Your task to perform on an android device: toggle improve location accuracy Image 0: 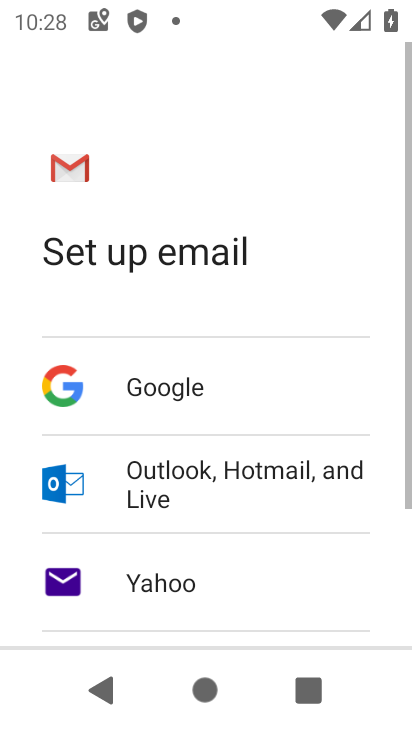
Step 0: press back button
Your task to perform on an android device: toggle improve location accuracy Image 1: 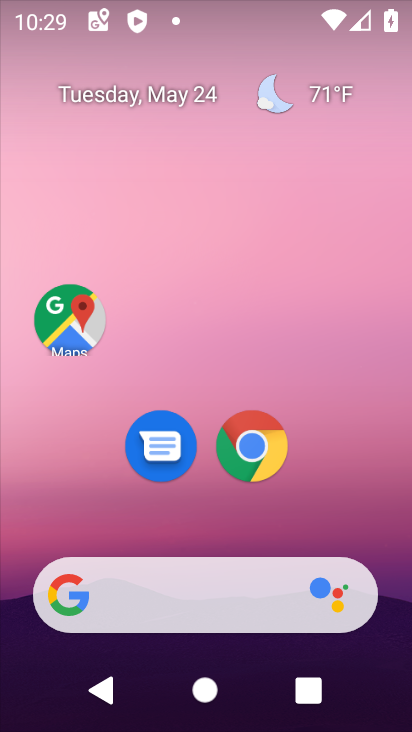
Step 1: drag from (331, 498) to (322, 93)
Your task to perform on an android device: toggle improve location accuracy Image 2: 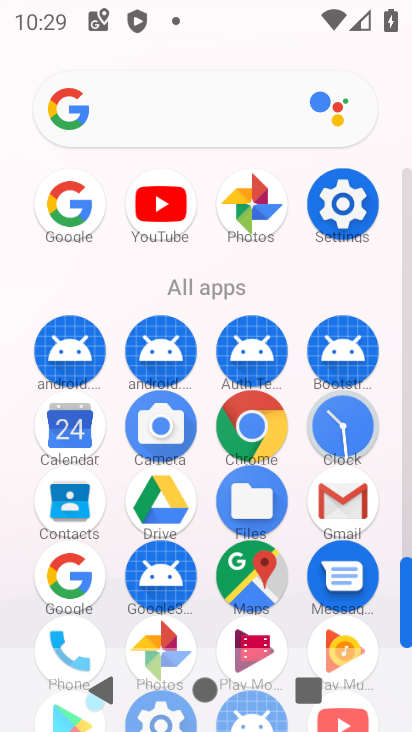
Step 2: click (345, 205)
Your task to perform on an android device: toggle improve location accuracy Image 3: 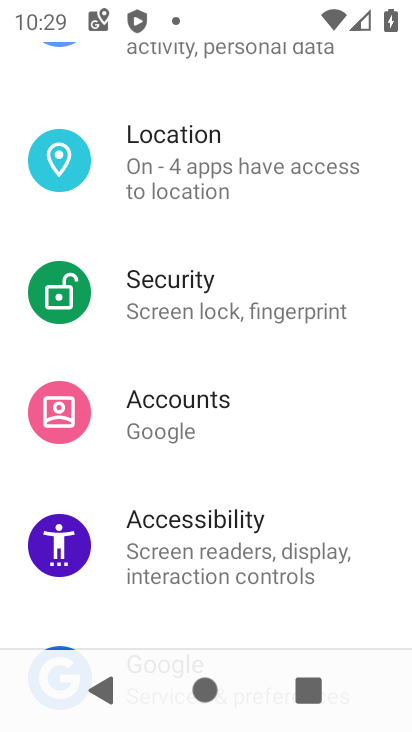
Step 3: drag from (235, 252) to (251, 411)
Your task to perform on an android device: toggle improve location accuracy Image 4: 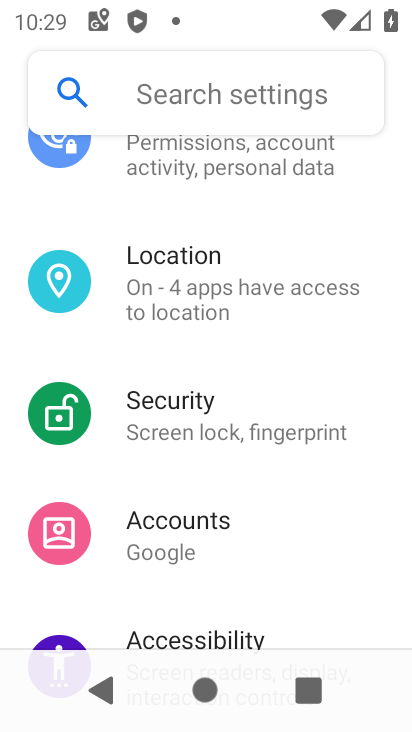
Step 4: click (186, 304)
Your task to perform on an android device: toggle improve location accuracy Image 5: 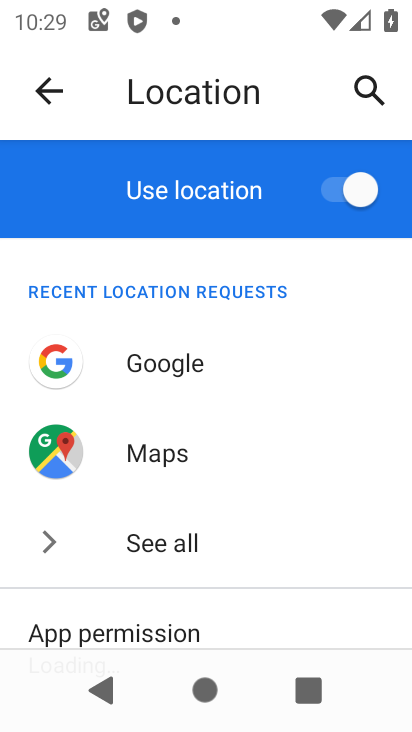
Step 5: drag from (173, 420) to (242, 335)
Your task to perform on an android device: toggle improve location accuracy Image 6: 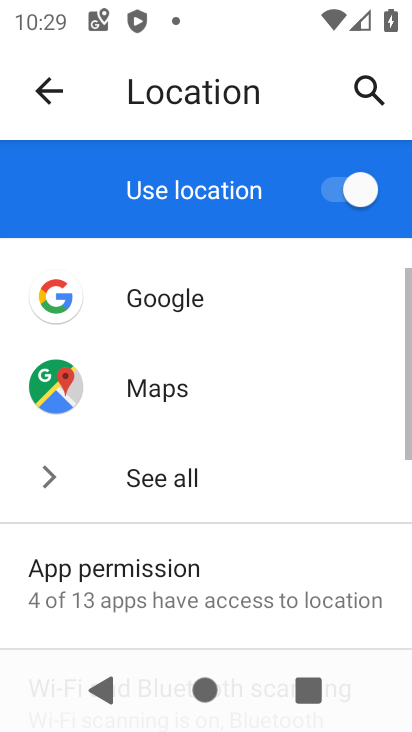
Step 6: drag from (228, 491) to (300, 384)
Your task to perform on an android device: toggle improve location accuracy Image 7: 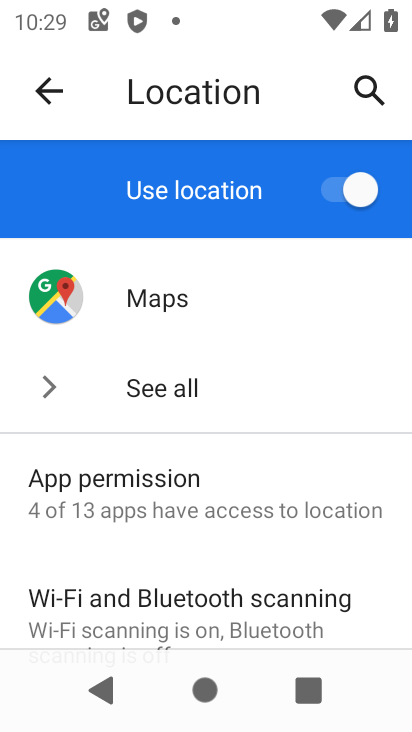
Step 7: drag from (207, 529) to (272, 446)
Your task to perform on an android device: toggle improve location accuracy Image 8: 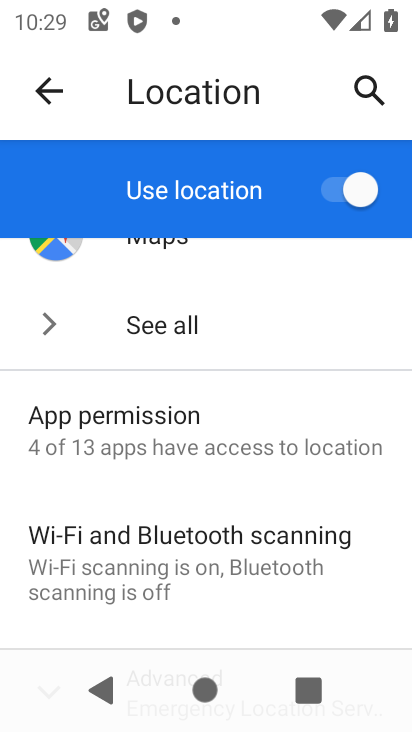
Step 8: drag from (201, 568) to (284, 461)
Your task to perform on an android device: toggle improve location accuracy Image 9: 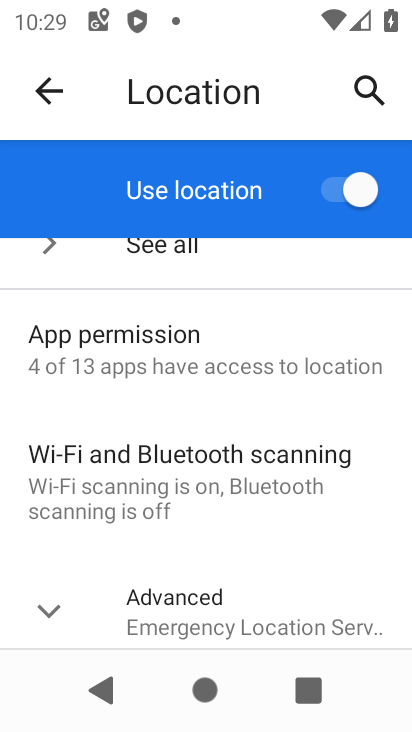
Step 9: drag from (207, 563) to (288, 464)
Your task to perform on an android device: toggle improve location accuracy Image 10: 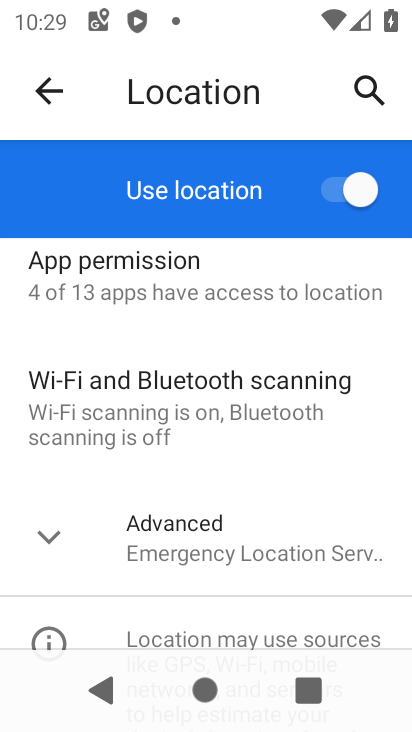
Step 10: click (214, 551)
Your task to perform on an android device: toggle improve location accuracy Image 11: 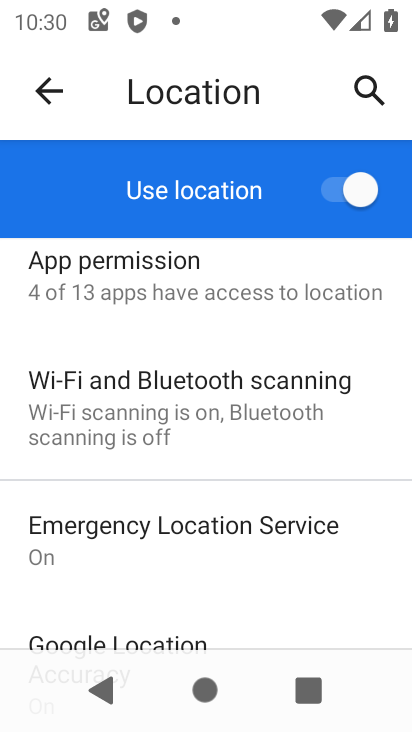
Step 11: drag from (211, 568) to (280, 464)
Your task to perform on an android device: toggle improve location accuracy Image 12: 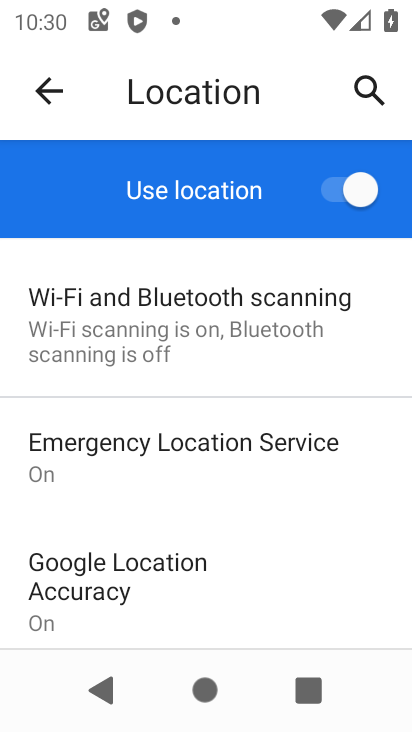
Step 12: drag from (196, 598) to (247, 529)
Your task to perform on an android device: toggle improve location accuracy Image 13: 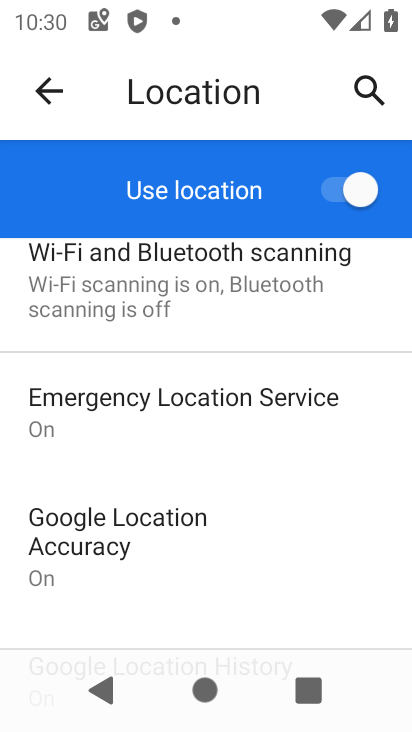
Step 13: click (152, 510)
Your task to perform on an android device: toggle improve location accuracy Image 14: 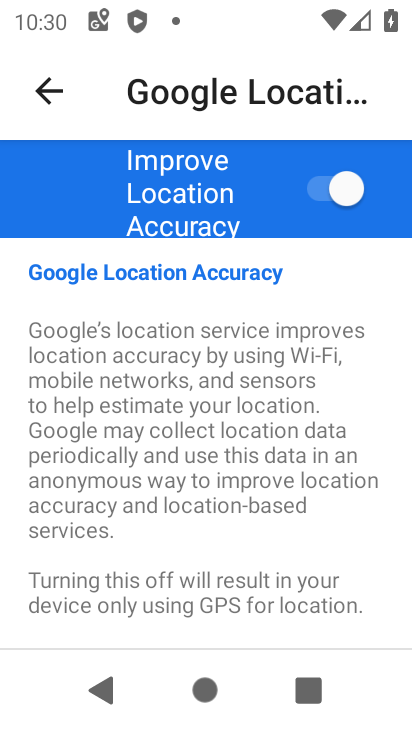
Step 14: click (341, 193)
Your task to perform on an android device: toggle improve location accuracy Image 15: 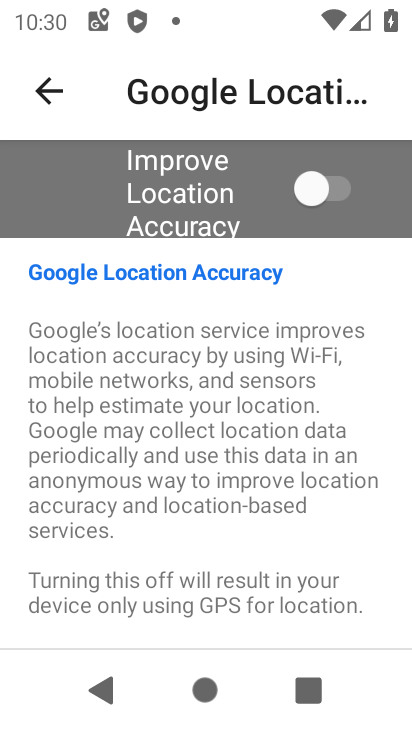
Step 15: task complete